Your task to perform on an android device: Open internet settings Image 0: 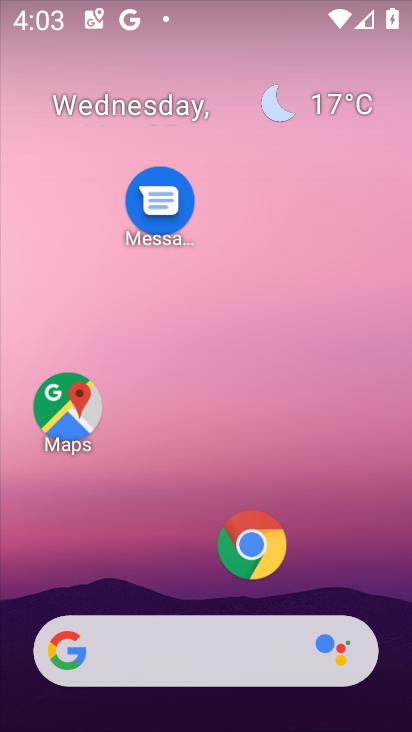
Step 0: drag from (336, 567) to (345, 480)
Your task to perform on an android device: Open internet settings Image 1: 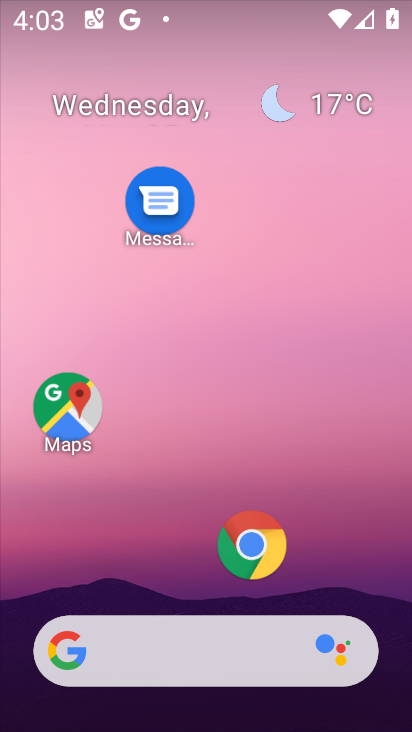
Step 1: drag from (323, 567) to (285, 159)
Your task to perform on an android device: Open internet settings Image 2: 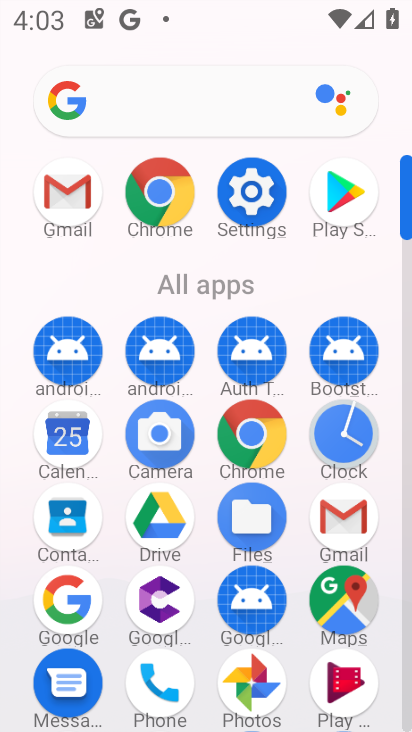
Step 2: click (265, 180)
Your task to perform on an android device: Open internet settings Image 3: 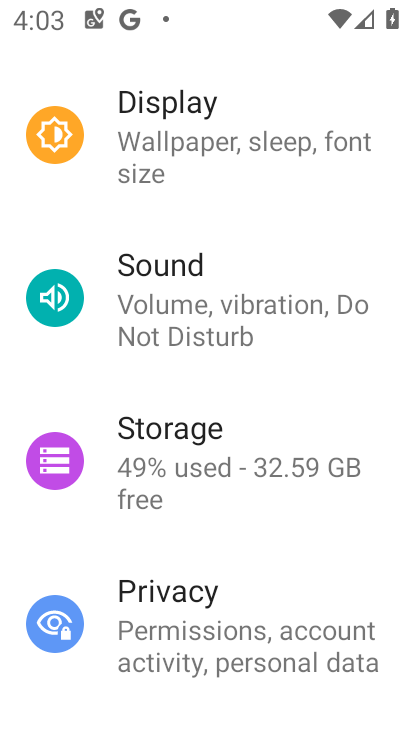
Step 3: drag from (230, 195) to (202, 571)
Your task to perform on an android device: Open internet settings Image 4: 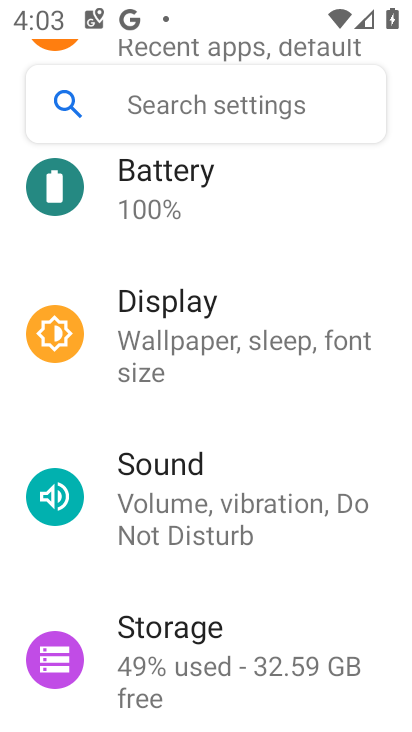
Step 4: drag from (272, 231) to (239, 588)
Your task to perform on an android device: Open internet settings Image 5: 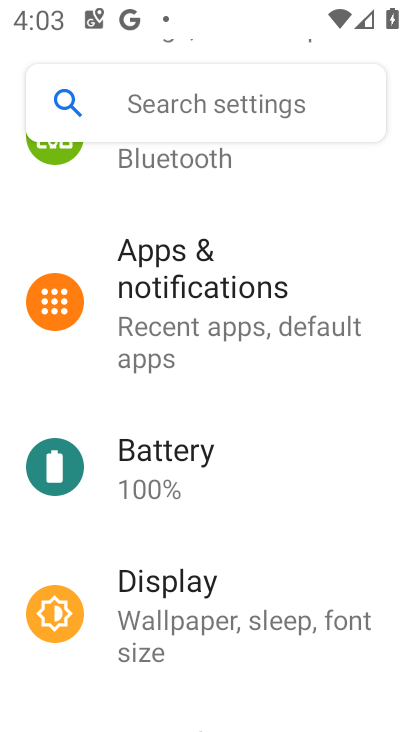
Step 5: drag from (280, 226) to (7, 239)
Your task to perform on an android device: Open internet settings Image 6: 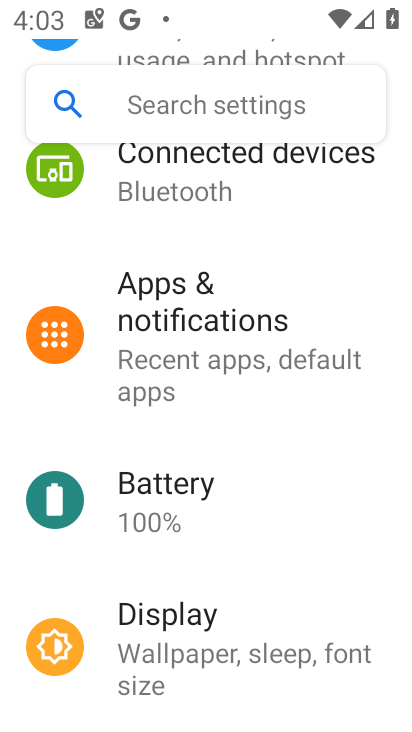
Step 6: drag from (239, 249) to (241, 581)
Your task to perform on an android device: Open internet settings Image 7: 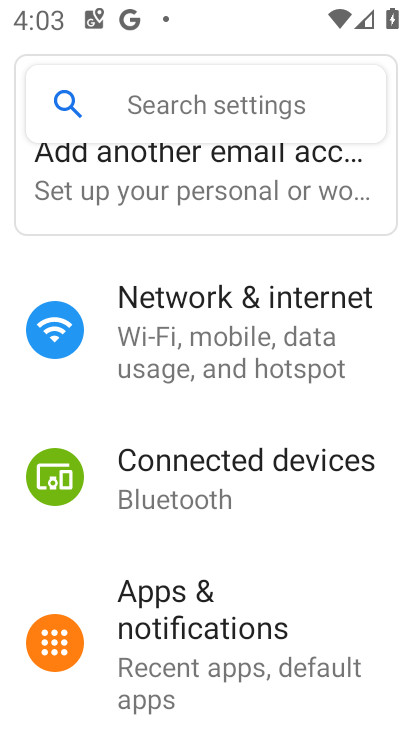
Step 7: click (263, 333)
Your task to perform on an android device: Open internet settings Image 8: 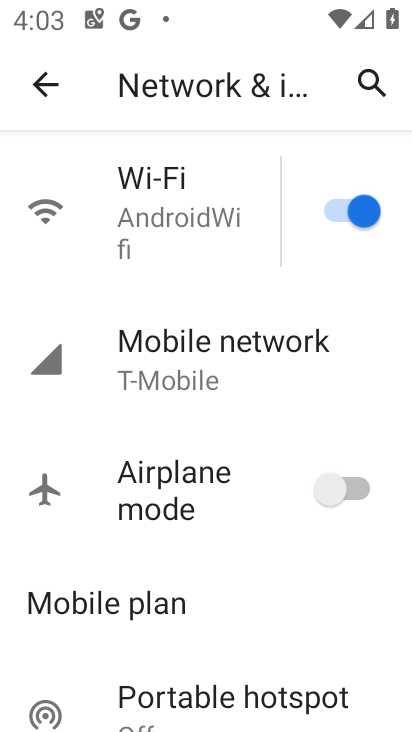
Step 8: task complete